Your task to perform on an android device: clear history in the chrome app Image 0: 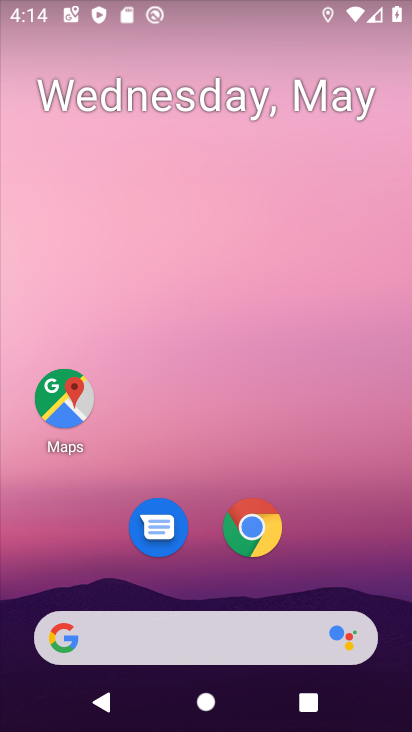
Step 0: press home button
Your task to perform on an android device: clear history in the chrome app Image 1: 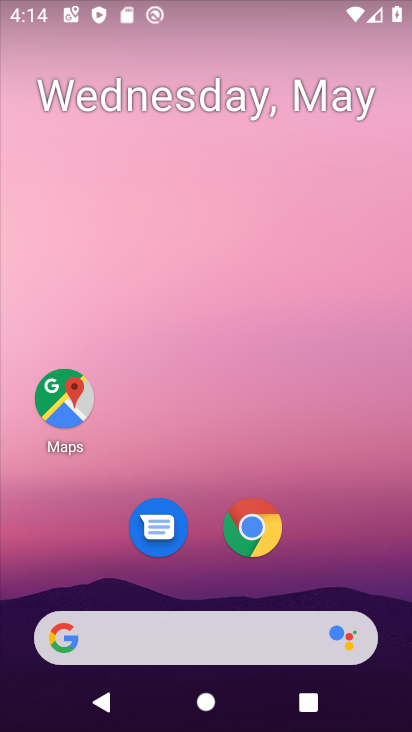
Step 1: click (269, 528)
Your task to perform on an android device: clear history in the chrome app Image 2: 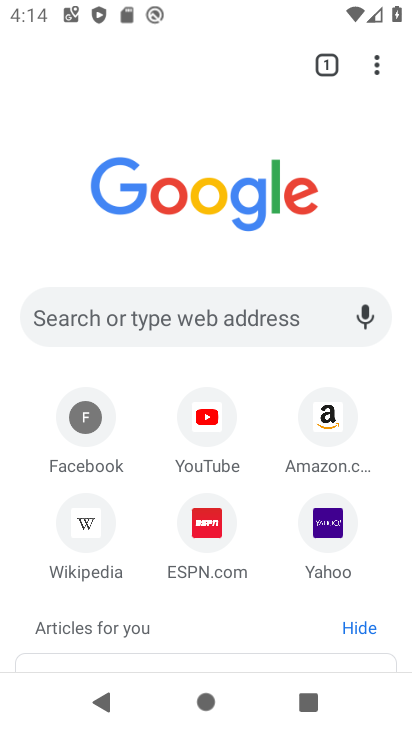
Step 2: drag from (377, 53) to (245, 541)
Your task to perform on an android device: clear history in the chrome app Image 3: 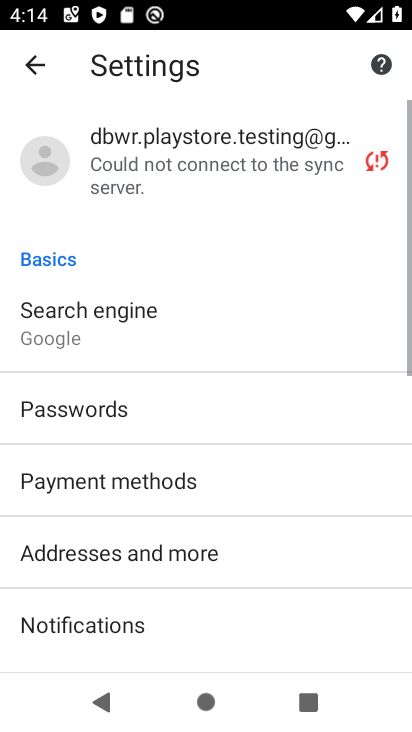
Step 3: drag from (178, 548) to (192, 0)
Your task to perform on an android device: clear history in the chrome app Image 4: 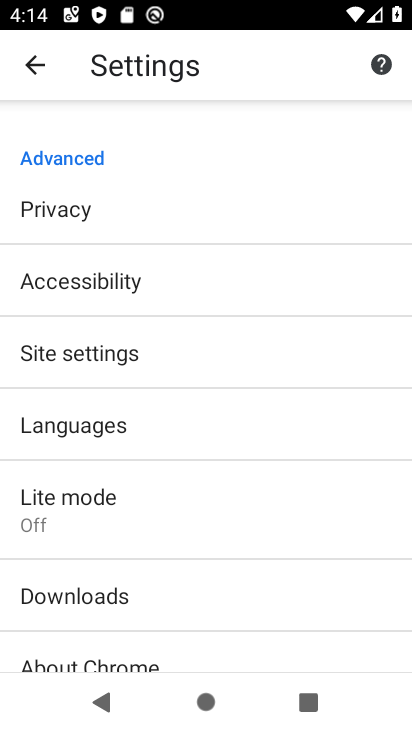
Step 4: click (149, 215)
Your task to perform on an android device: clear history in the chrome app Image 5: 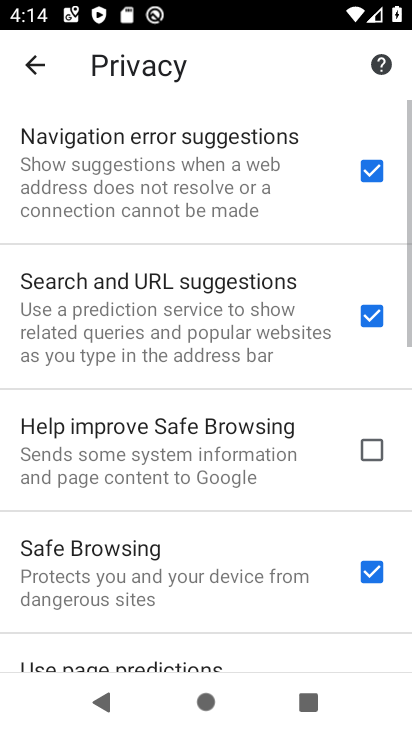
Step 5: drag from (224, 628) to (158, 108)
Your task to perform on an android device: clear history in the chrome app Image 6: 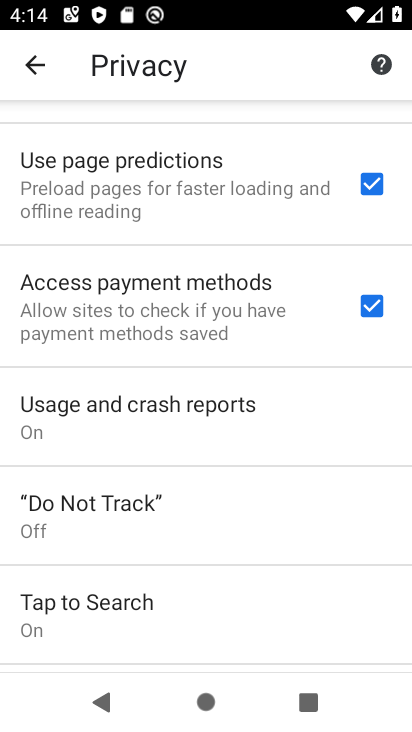
Step 6: drag from (213, 606) to (206, 107)
Your task to perform on an android device: clear history in the chrome app Image 7: 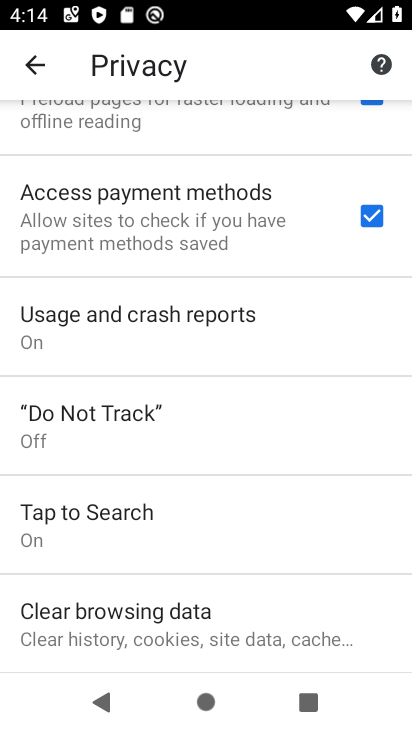
Step 7: click (236, 605)
Your task to perform on an android device: clear history in the chrome app Image 8: 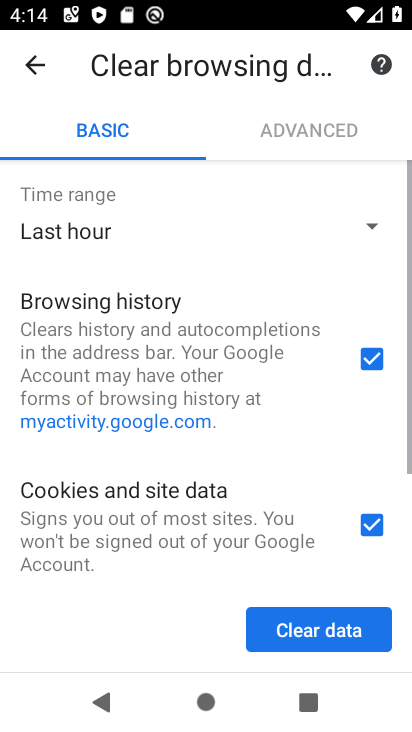
Step 8: click (302, 661)
Your task to perform on an android device: clear history in the chrome app Image 9: 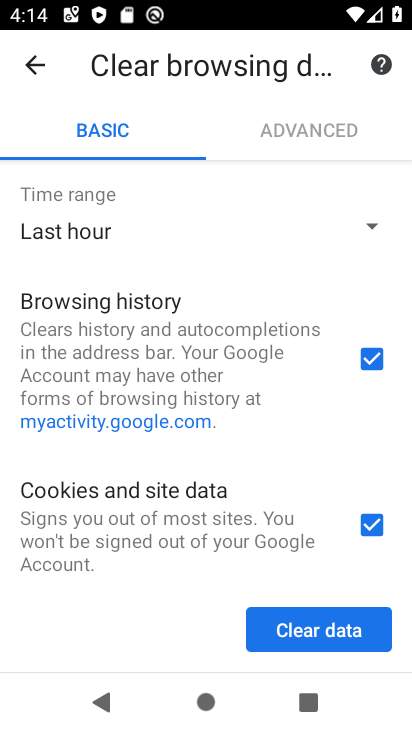
Step 9: click (301, 640)
Your task to perform on an android device: clear history in the chrome app Image 10: 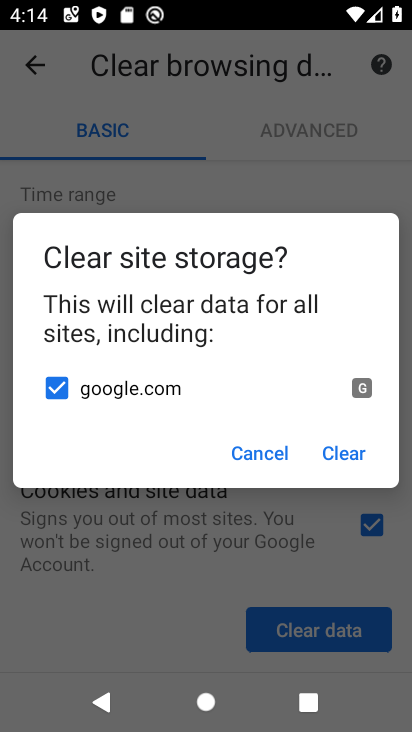
Step 10: click (358, 452)
Your task to perform on an android device: clear history in the chrome app Image 11: 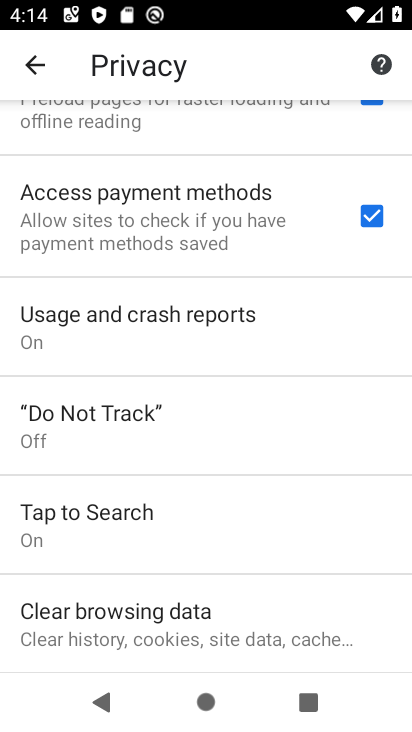
Step 11: task complete